Your task to perform on an android device: Open Youtube and go to the subscriptions tab Image 0: 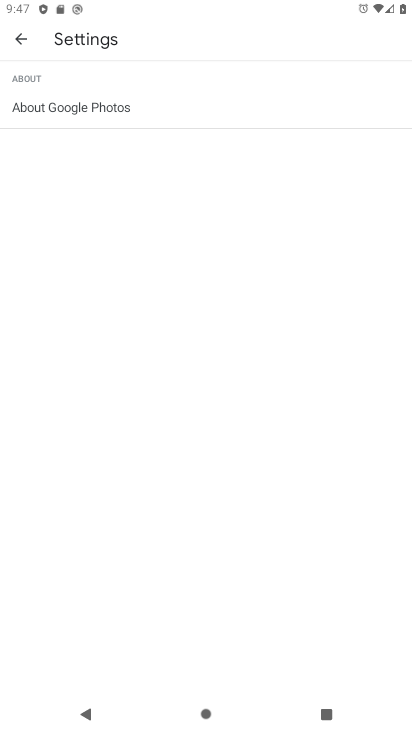
Step 0: click (14, 34)
Your task to perform on an android device: Open Youtube and go to the subscriptions tab Image 1: 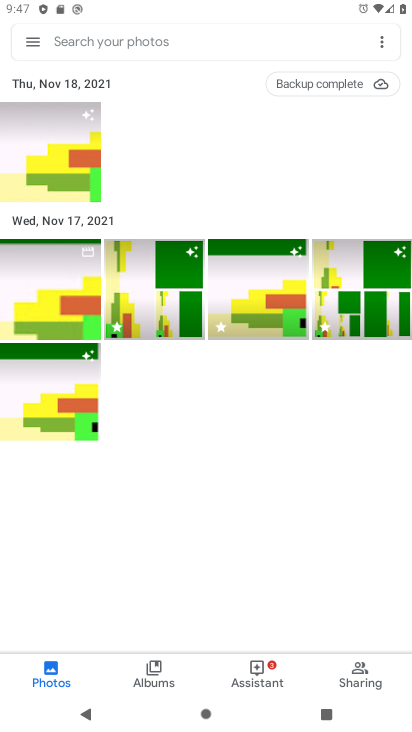
Step 1: press home button
Your task to perform on an android device: Open Youtube and go to the subscriptions tab Image 2: 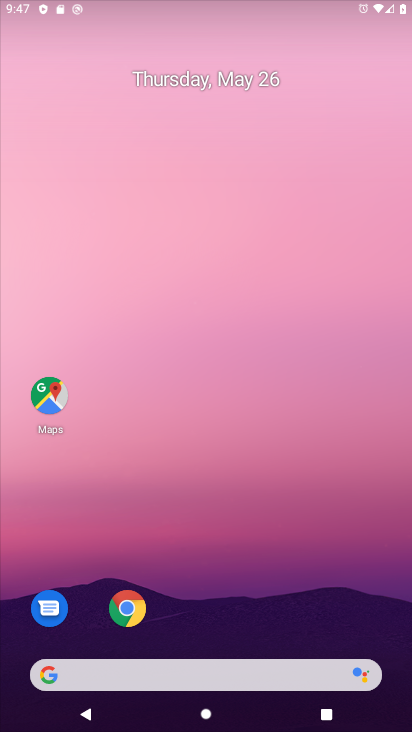
Step 2: drag from (332, 575) to (176, 20)
Your task to perform on an android device: Open Youtube and go to the subscriptions tab Image 3: 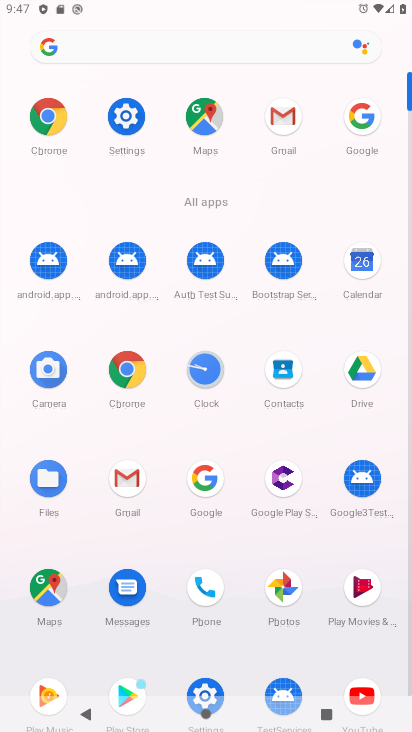
Step 3: click (359, 686)
Your task to perform on an android device: Open Youtube and go to the subscriptions tab Image 4: 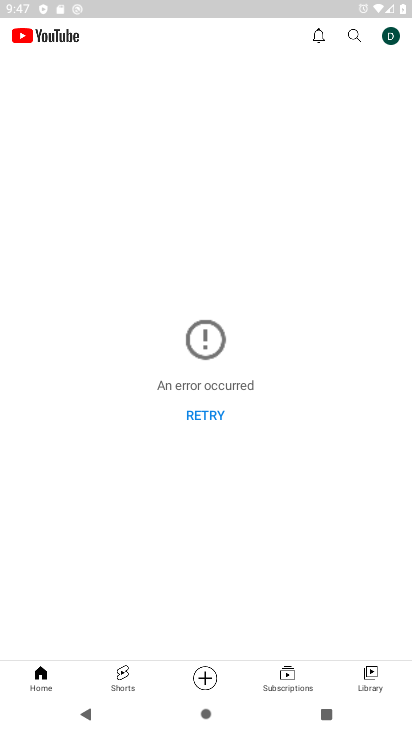
Step 4: click (289, 681)
Your task to perform on an android device: Open Youtube and go to the subscriptions tab Image 5: 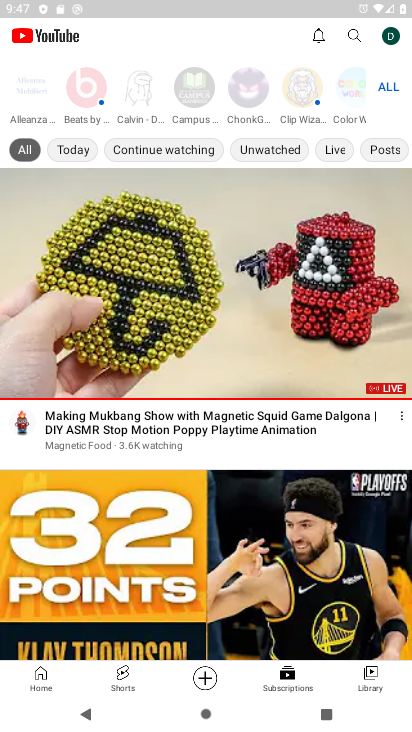
Step 5: task complete